Your task to perform on an android device: Open Google Image 0: 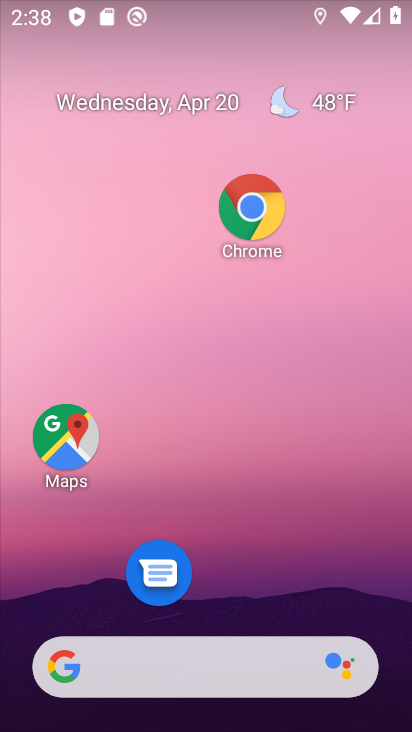
Step 0: click (204, 33)
Your task to perform on an android device: Open Google Image 1: 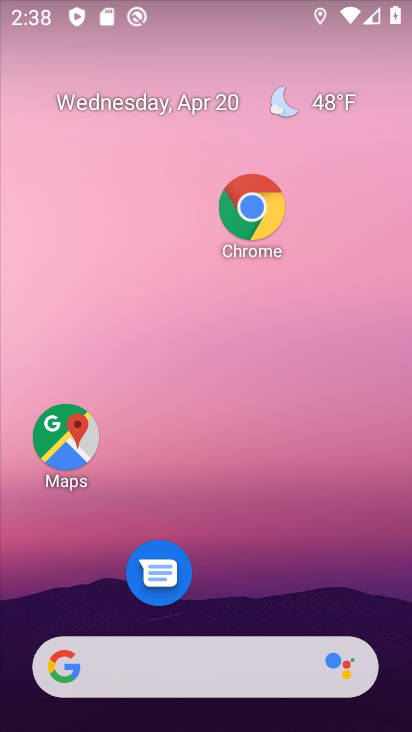
Step 1: drag from (275, 594) to (285, 172)
Your task to perform on an android device: Open Google Image 2: 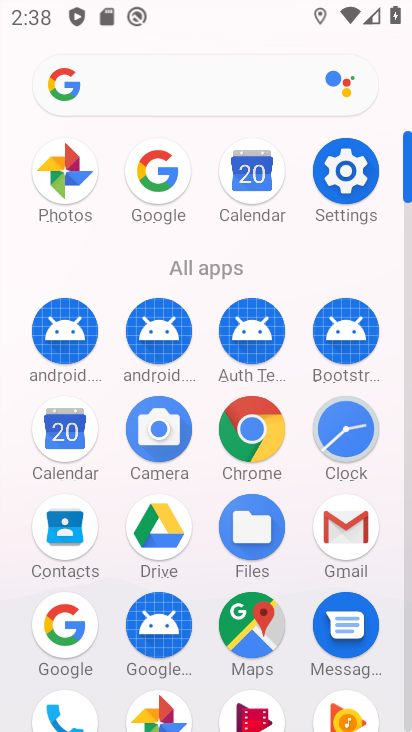
Step 2: click (70, 624)
Your task to perform on an android device: Open Google Image 3: 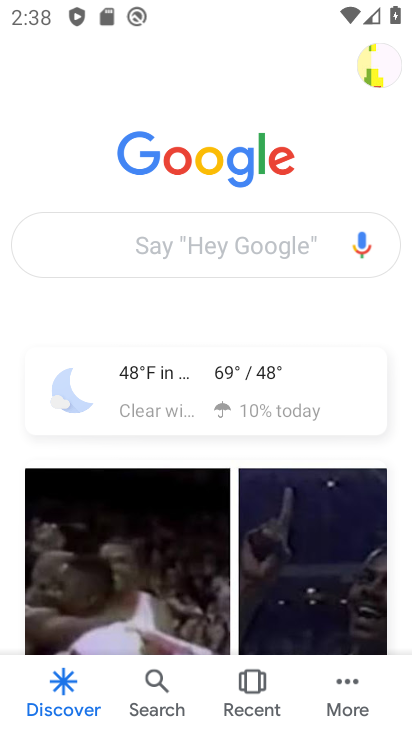
Step 3: task complete